Your task to perform on an android device: turn on translation in the chrome app Image 0: 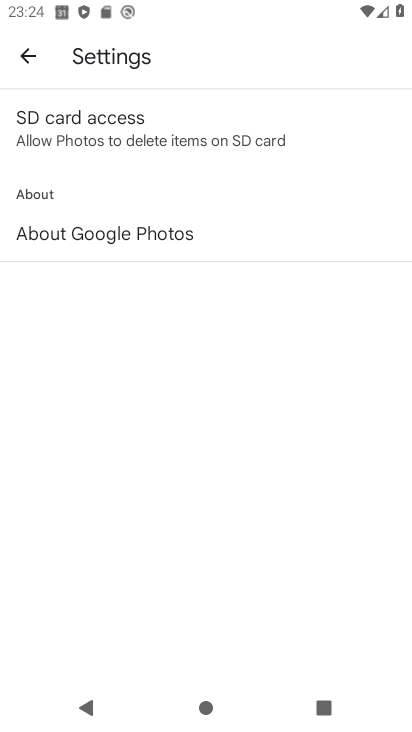
Step 0: press back button
Your task to perform on an android device: turn on translation in the chrome app Image 1: 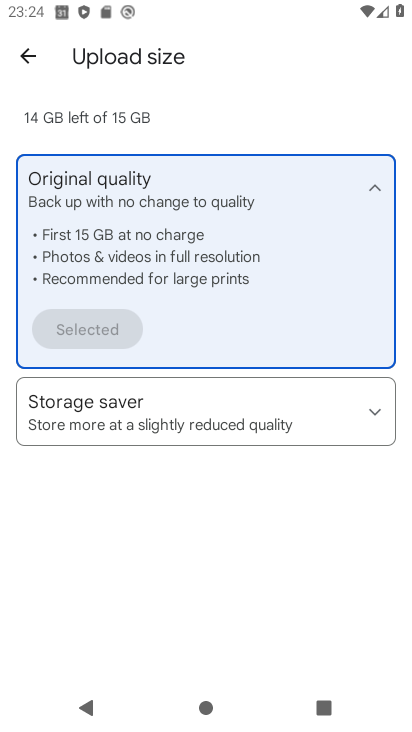
Step 1: press back button
Your task to perform on an android device: turn on translation in the chrome app Image 2: 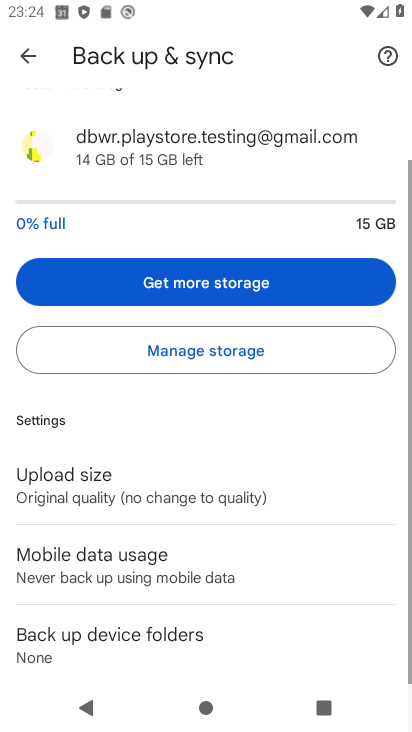
Step 2: press back button
Your task to perform on an android device: turn on translation in the chrome app Image 3: 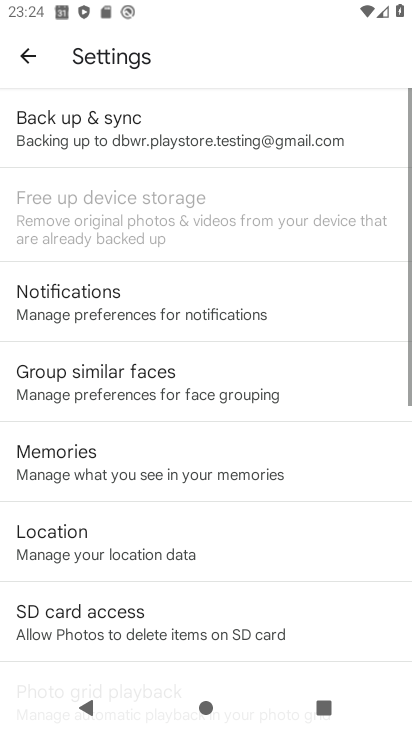
Step 3: press back button
Your task to perform on an android device: turn on translation in the chrome app Image 4: 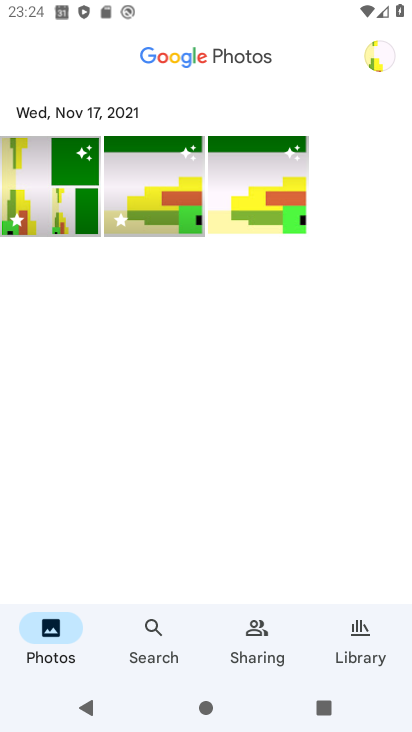
Step 4: press back button
Your task to perform on an android device: turn on translation in the chrome app Image 5: 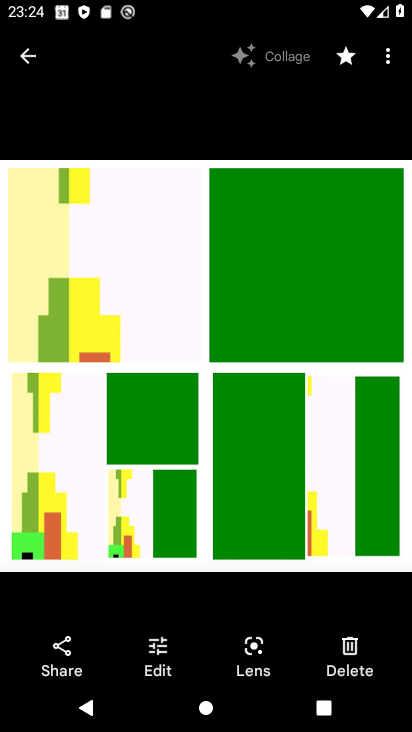
Step 5: press back button
Your task to perform on an android device: turn on translation in the chrome app Image 6: 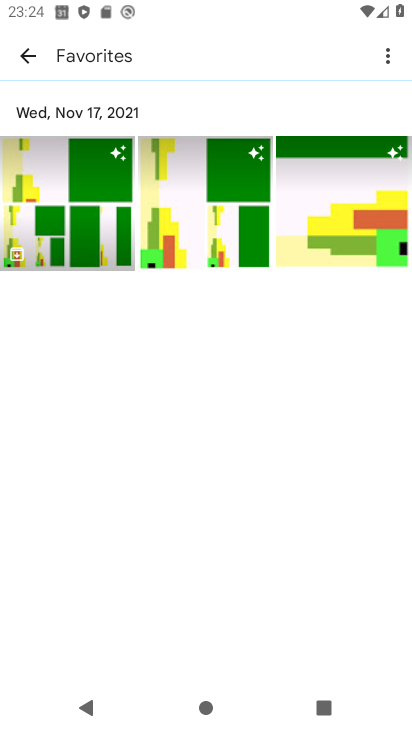
Step 6: press back button
Your task to perform on an android device: turn on translation in the chrome app Image 7: 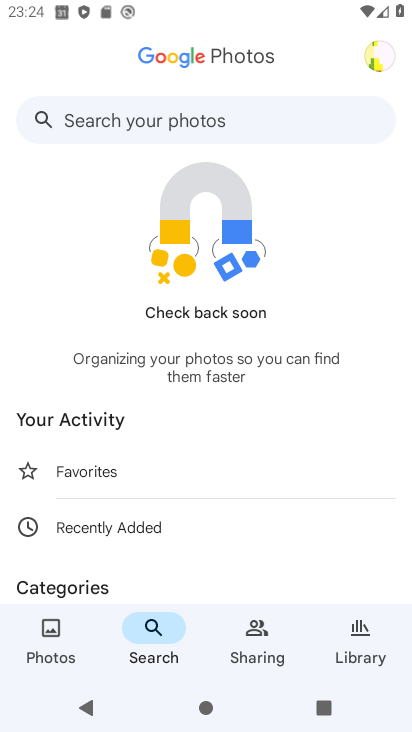
Step 7: press back button
Your task to perform on an android device: turn on translation in the chrome app Image 8: 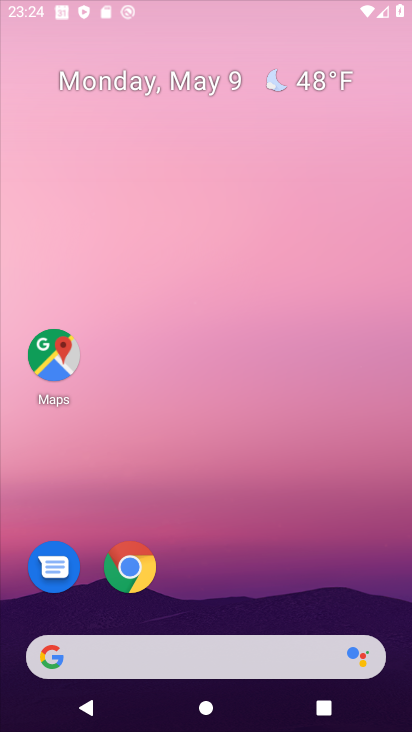
Step 8: press back button
Your task to perform on an android device: turn on translation in the chrome app Image 9: 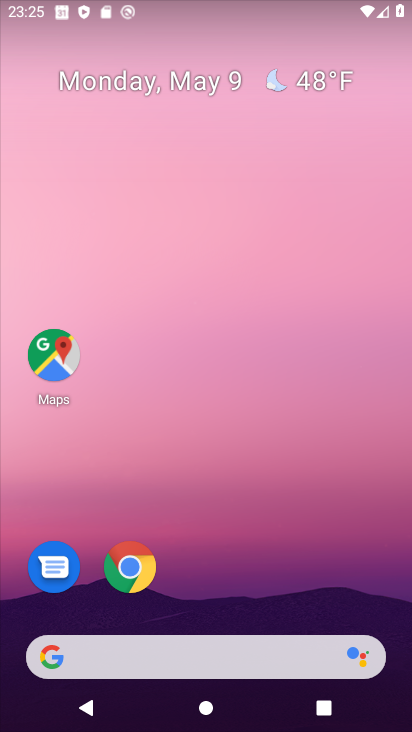
Step 9: click (129, 569)
Your task to perform on an android device: turn on translation in the chrome app Image 10: 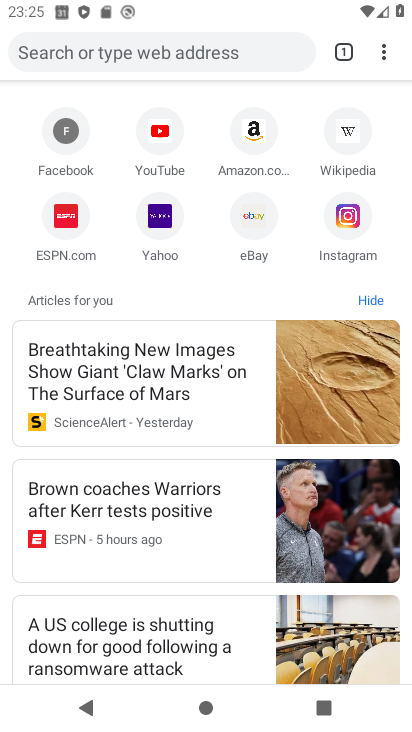
Step 10: click (386, 50)
Your task to perform on an android device: turn on translation in the chrome app Image 11: 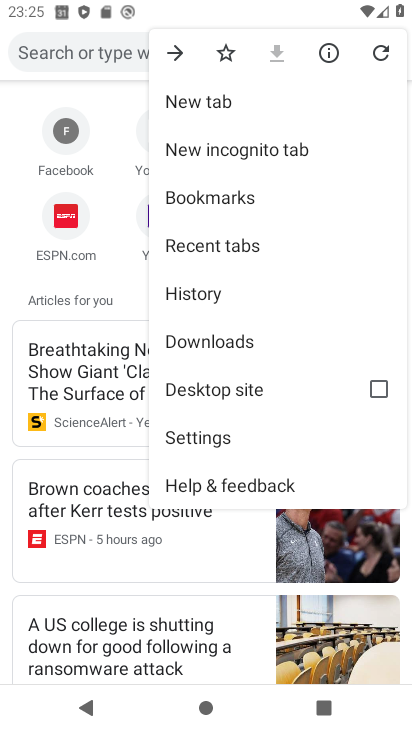
Step 11: click (215, 439)
Your task to perform on an android device: turn on translation in the chrome app Image 12: 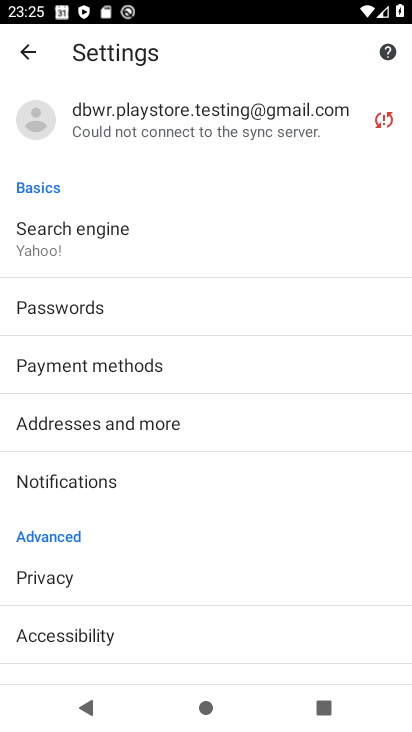
Step 12: drag from (149, 509) to (209, 390)
Your task to perform on an android device: turn on translation in the chrome app Image 13: 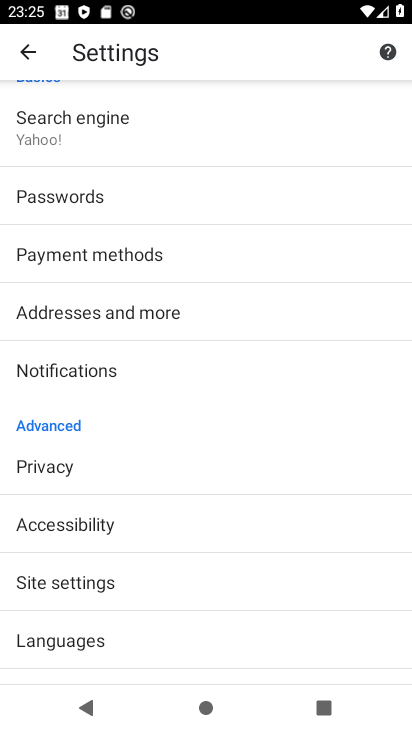
Step 13: drag from (143, 444) to (183, 356)
Your task to perform on an android device: turn on translation in the chrome app Image 14: 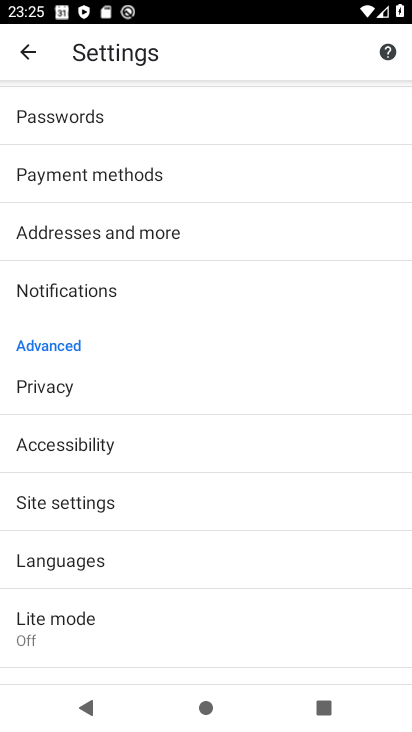
Step 14: drag from (136, 392) to (146, 292)
Your task to perform on an android device: turn on translation in the chrome app Image 15: 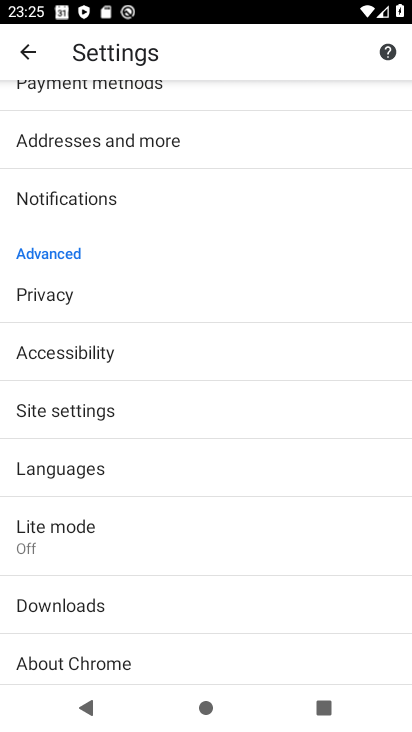
Step 15: click (75, 474)
Your task to perform on an android device: turn on translation in the chrome app Image 16: 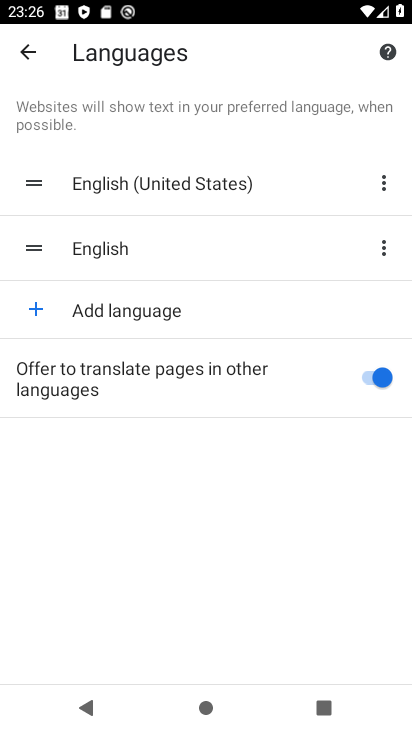
Step 16: task complete